Your task to perform on an android device: Show me recent news Image 0: 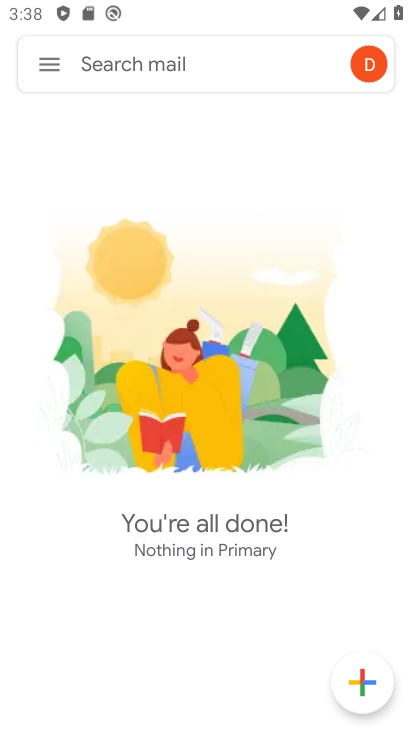
Step 0: press home button
Your task to perform on an android device: Show me recent news Image 1: 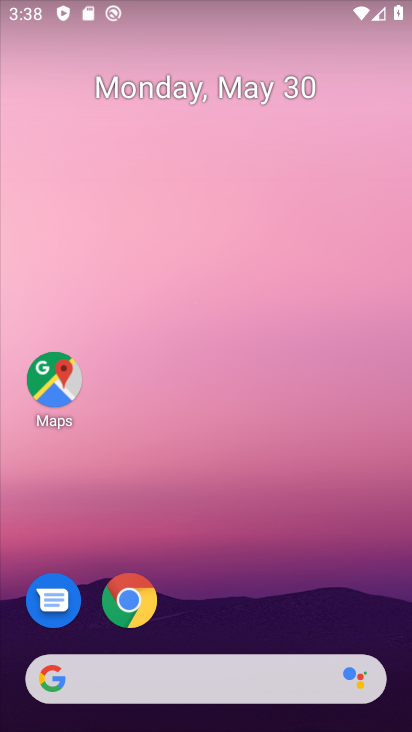
Step 1: click (275, 682)
Your task to perform on an android device: Show me recent news Image 2: 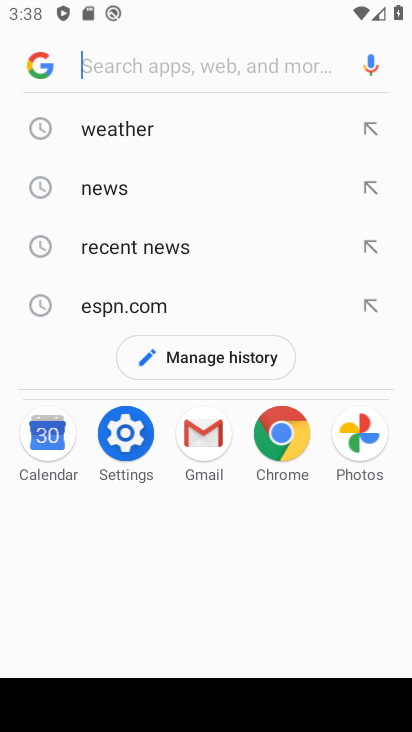
Step 2: click (164, 249)
Your task to perform on an android device: Show me recent news Image 3: 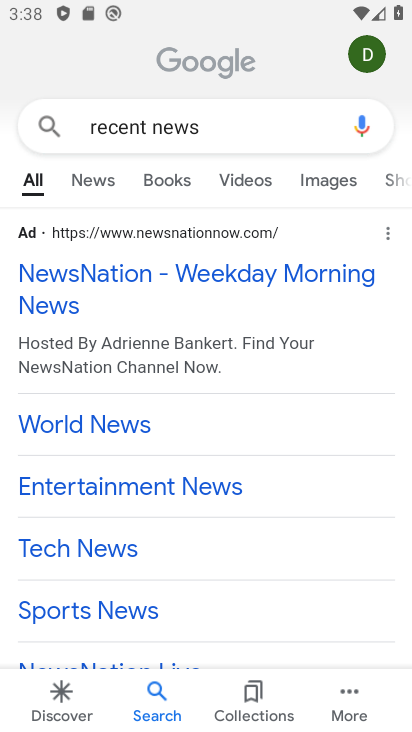
Step 3: click (302, 276)
Your task to perform on an android device: Show me recent news Image 4: 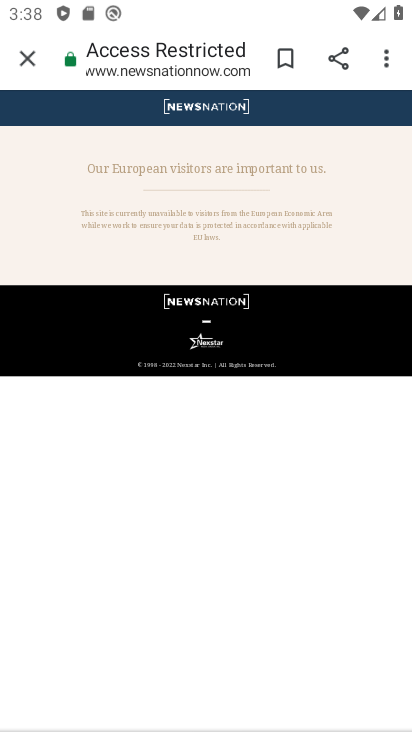
Step 4: task complete